Your task to perform on an android device: turn off location history Image 0: 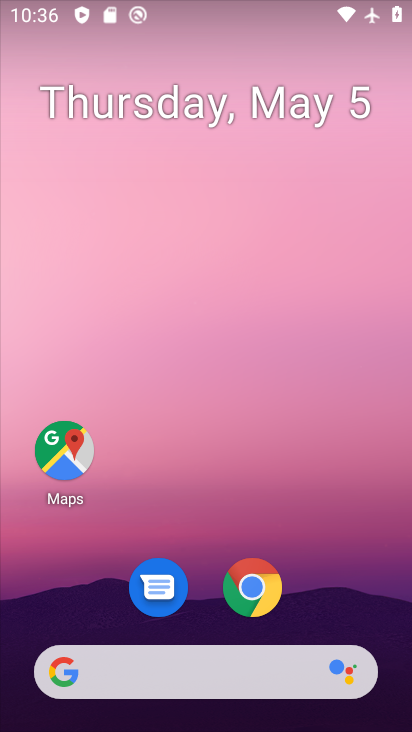
Step 0: drag from (398, 666) to (92, 12)
Your task to perform on an android device: turn off location history Image 1: 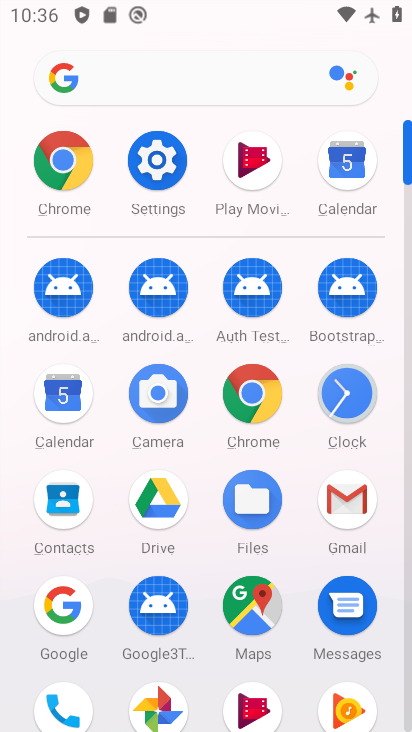
Step 1: drag from (17, 608) to (17, 187)
Your task to perform on an android device: turn off location history Image 2: 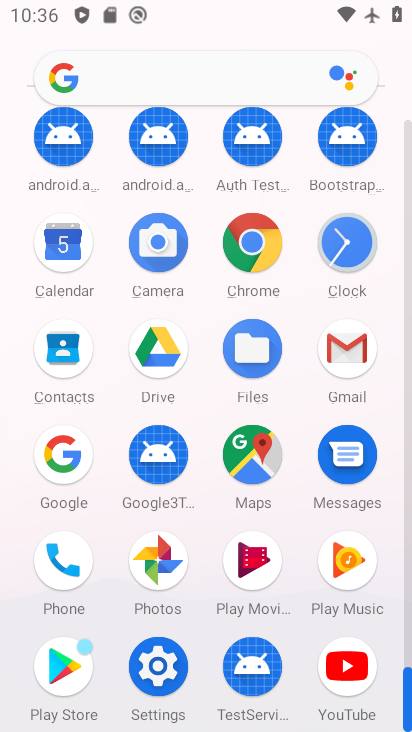
Step 2: drag from (8, 633) to (9, 304)
Your task to perform on an android device: turn off location history Image 3: 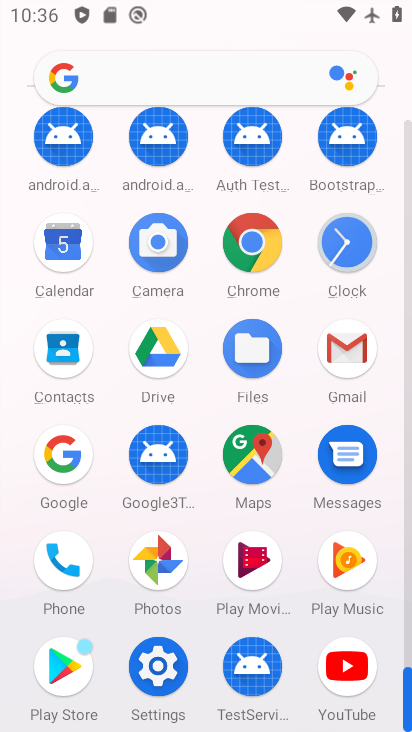
Step 3: click (152, 661)
Your task to perform on an android device: turn off location history Image 4: 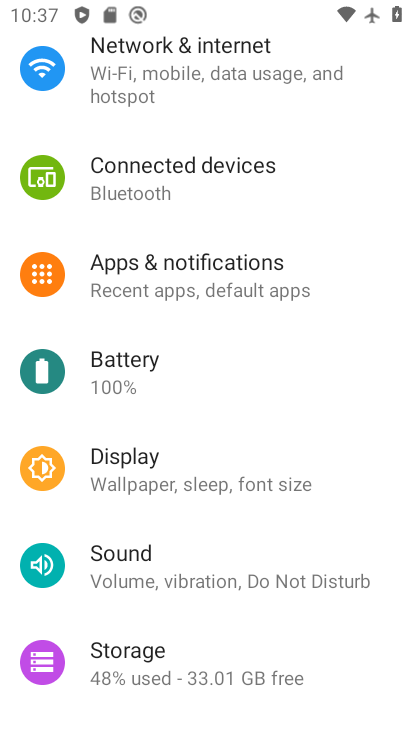
Step 4: drag from (304, 105) to (319, 571)
Your task to perform on an android device: turn off location history Image 5: 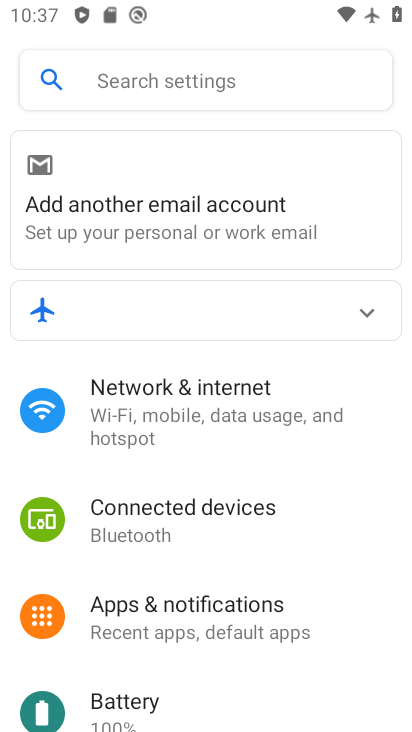
Step 5: drag from (304, 585) to (318, 167)
Your task to perform on an android device: turn off location history Image 6: 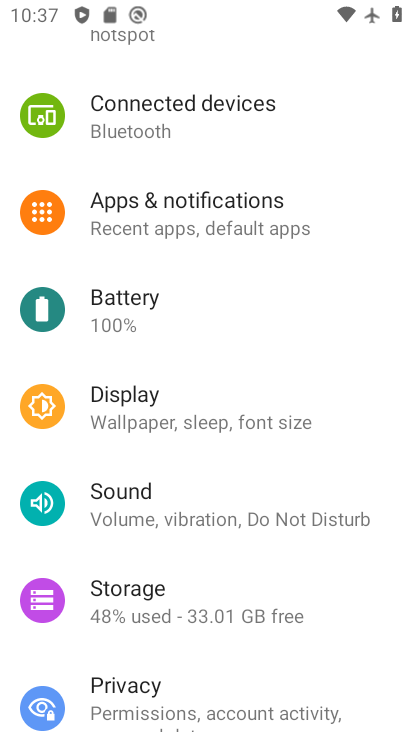
Step 6: drag from (362, 614) to (323, 163)
Your task to perform on an android device: turn off location history Image 7: 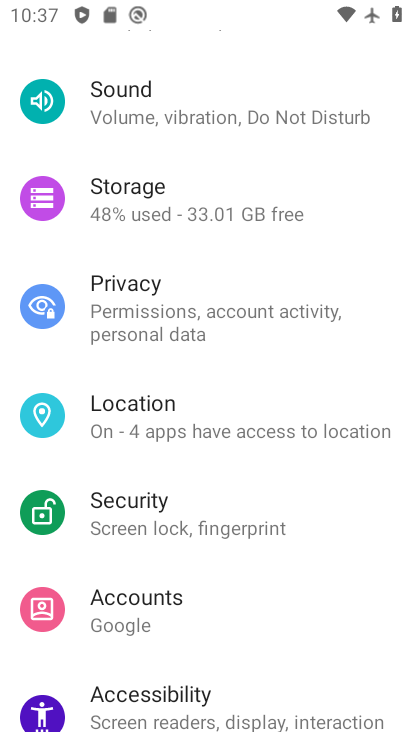
Step 7: click (166, 400)
Your task to perform on an android device: turn off location history Image 8: 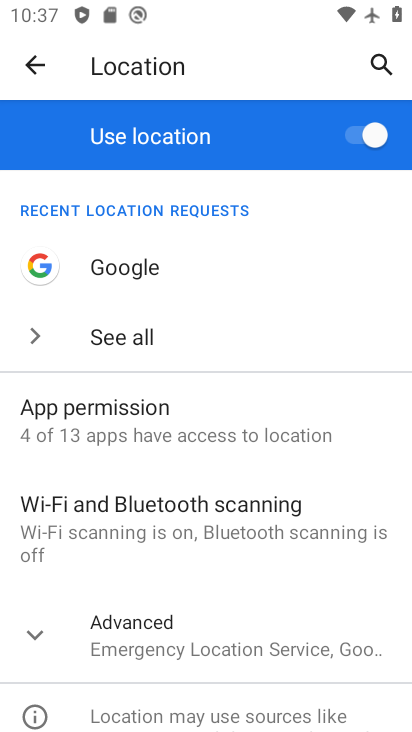
Step 8: click (23, 640)
Your task to perform on an android device: turn off location history Image 9: 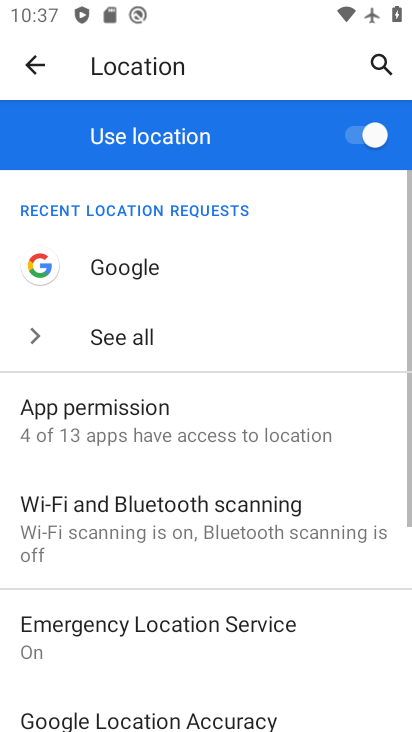
Step 9: drag from (265, 576) to (265, 164)
Your task to perform on an android device: turn off location history Image 10: 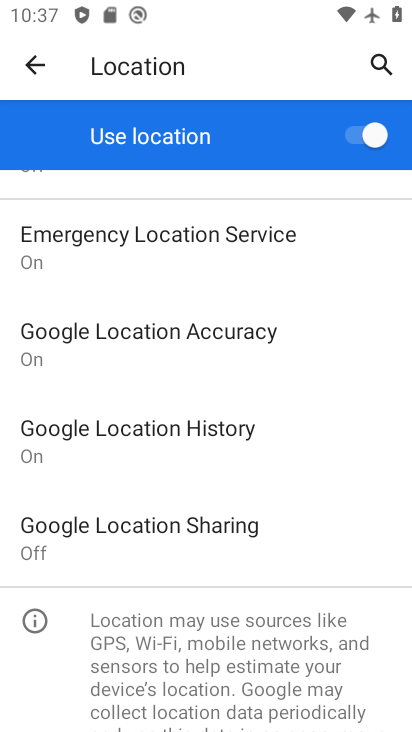
Step 10: click (145, 439)
Your task to perform on an android device: turn off location history Image 11: 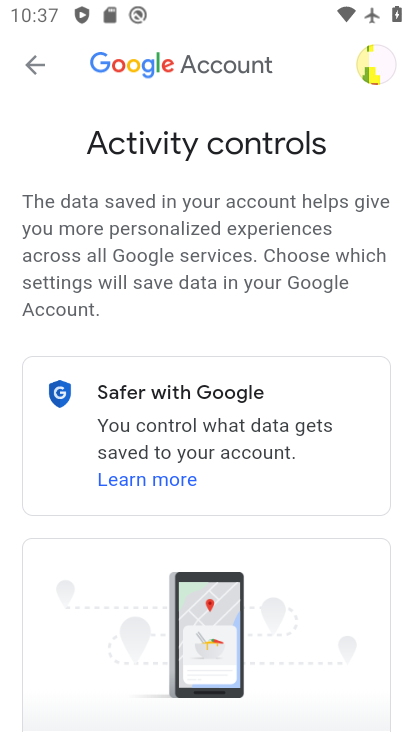
Step 11: drag from (290, 483) to (293, 127)
Your task to perform on an android device: turn off location history Image 12: 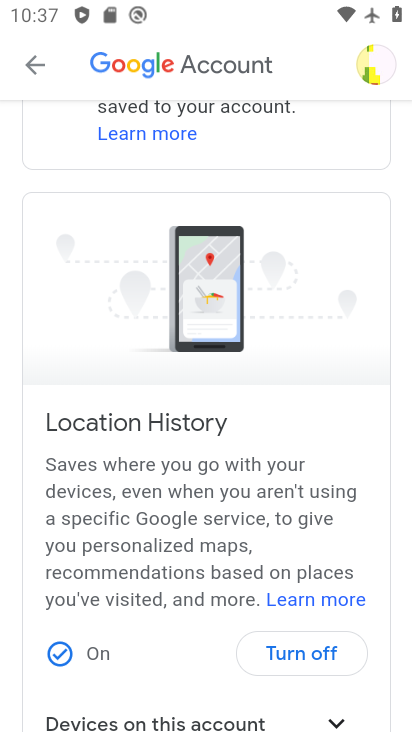
Step 12: drag from (305, 605) to (291, 278)
Your task to perform on an android device: turn off location history Image 13: 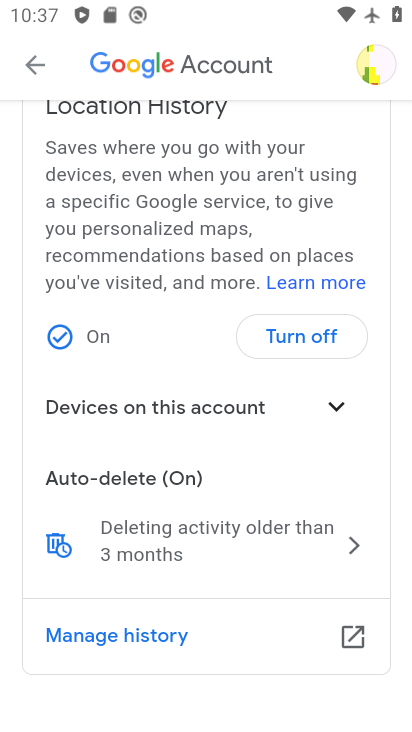
Step 13: click (301, 337)
Your task to perform on an android device: turn off location history Image 14: 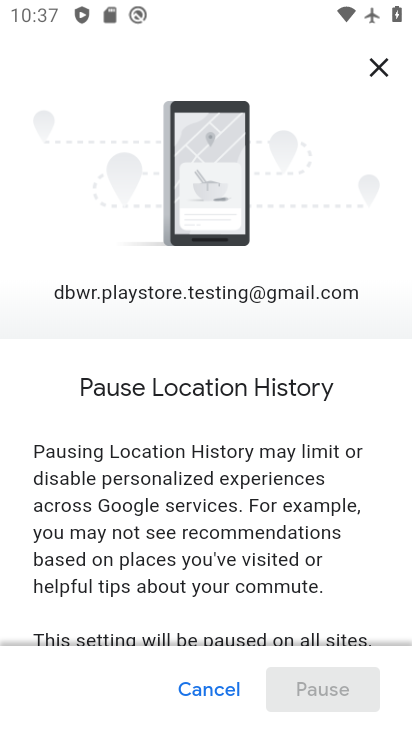
Step 14: drag from (252, 600) to (239, 103)
Your task to perform on an android device: turn off location history Image 15: 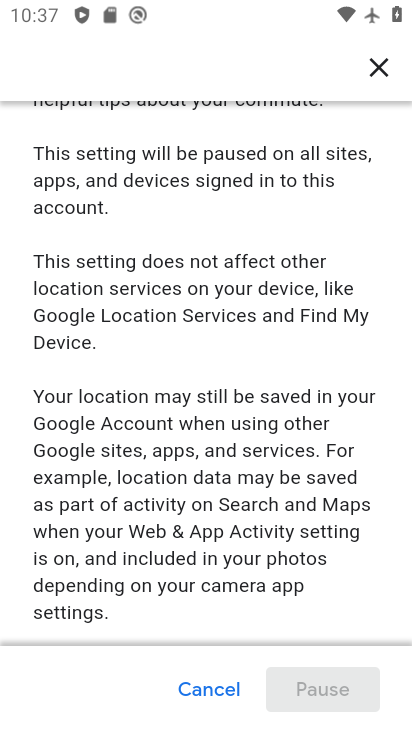
Step 15: drag from (203, 556) to (213, 61)
Your task to perform on an android device: turn off location history Image 16: 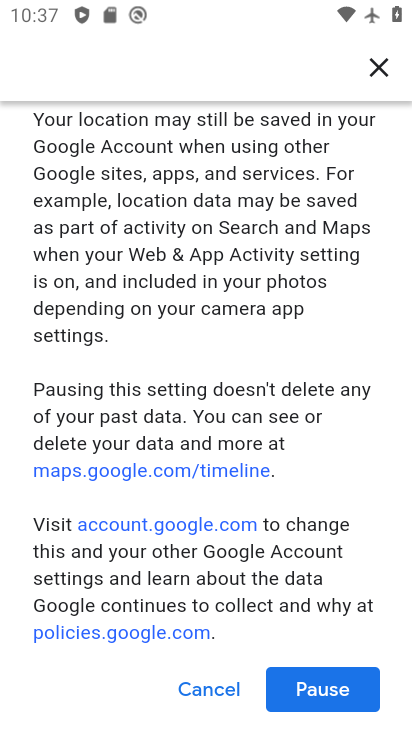
Step 16: click (314, 721)
Your task to perform on an android device: turn off location history Image 17: 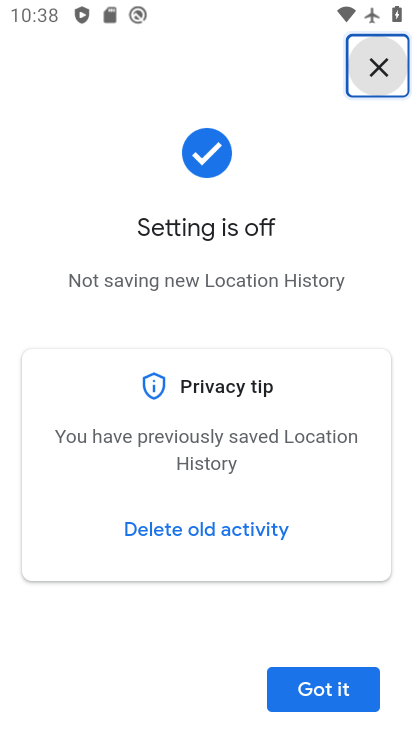
Step 17: task complete